Your task to perform on an android device: Turn on the flashlight Image 0: 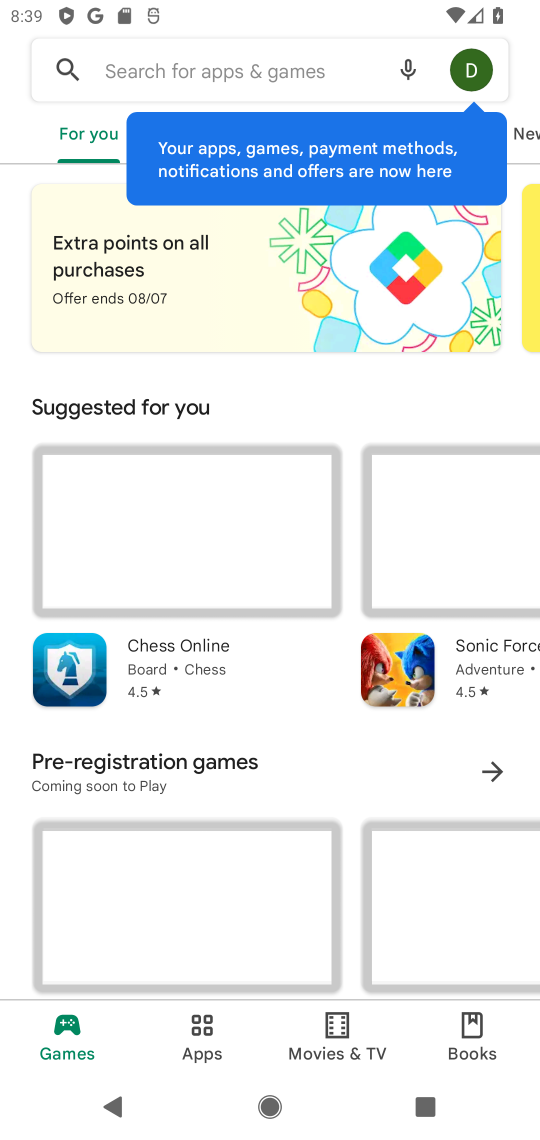
Step 0: press home button
Your task to perform on an android device: Turn on the flashlight Image 1: 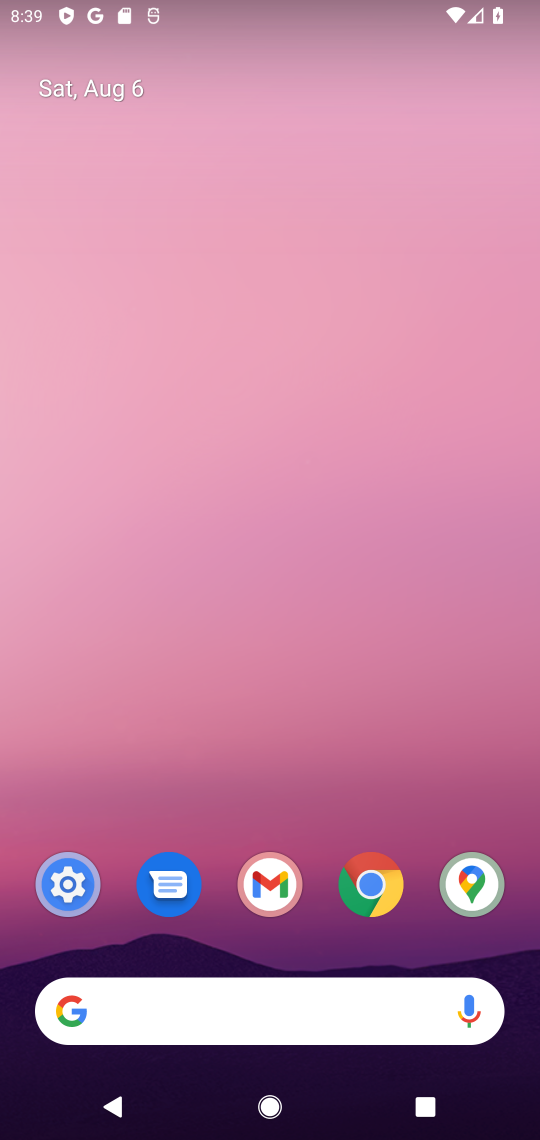
Step 1: drag from (293, 19) to (293, 966)
Your task to perform on an android device: Turn on the flashlight Image 2: 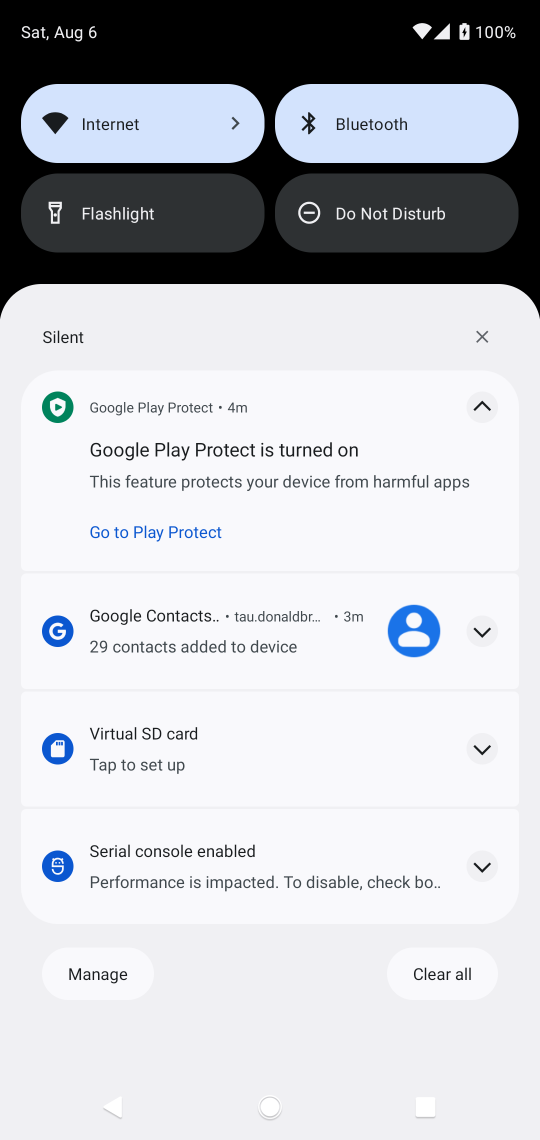
Step 2: click (114, 222)
Your task to perform on an android device: Turn on the flashlight Image 3: 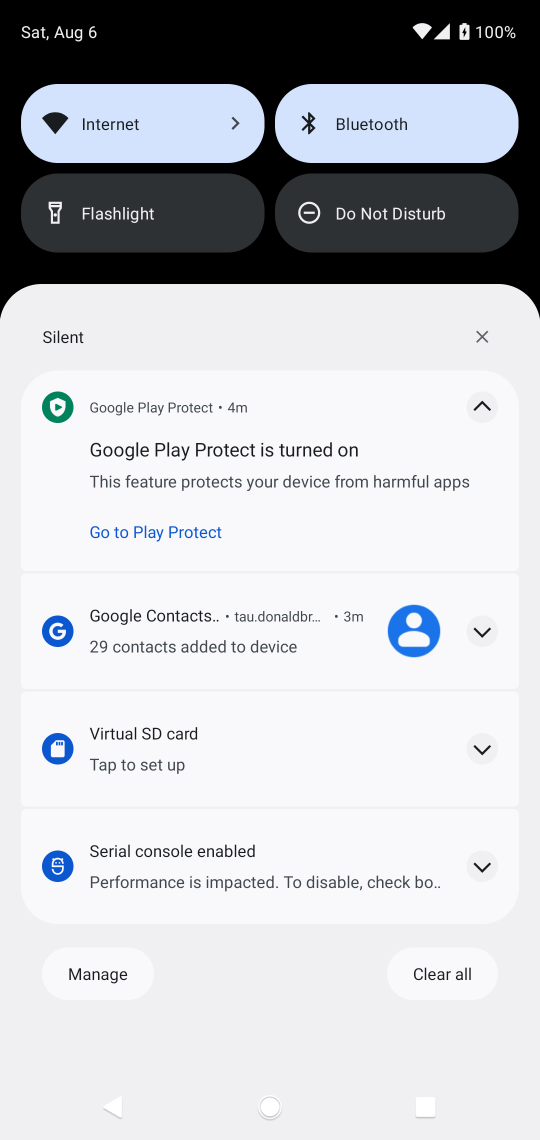
Step 3: click (93, 213)
Your task to perform on an android device: Turn on the flashlight Image 4: 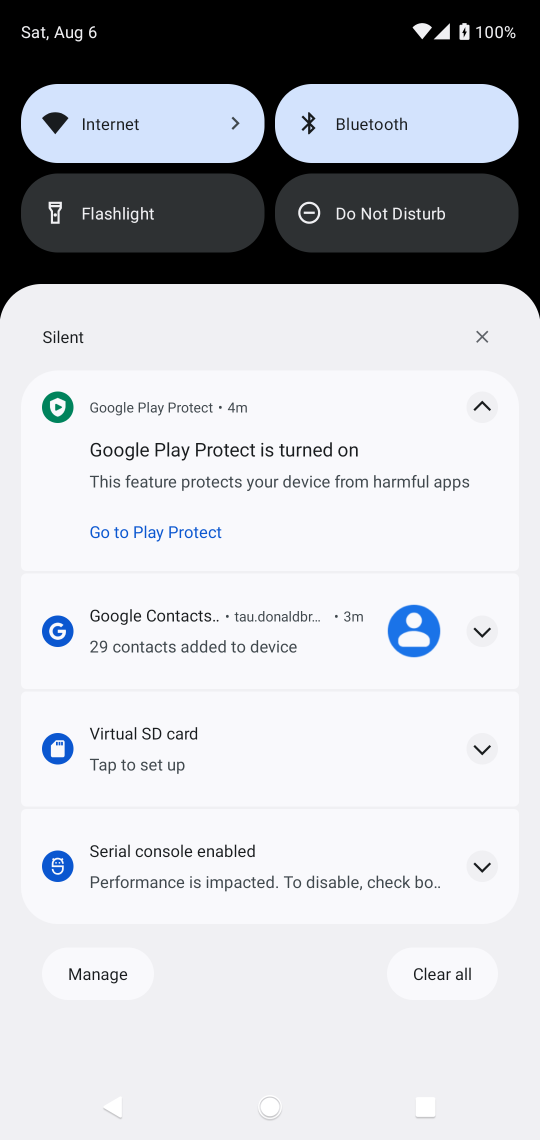
Step 4: task complete